Your task to perform on an android device: Show the shopping cart on ebay. Image 0: 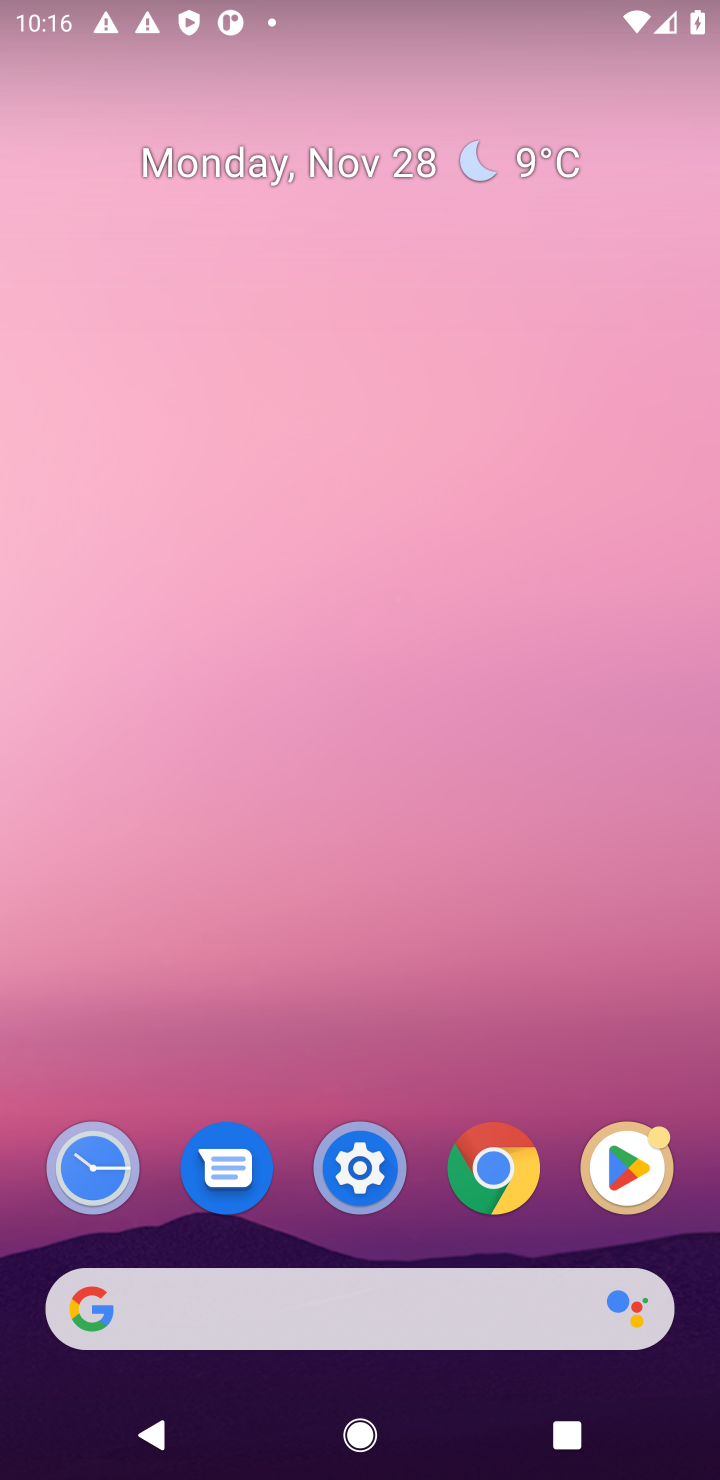
Step 0: click (368, 1290)
Your task to perform on an android device: Show the shopping cart on ebay. Image 1: 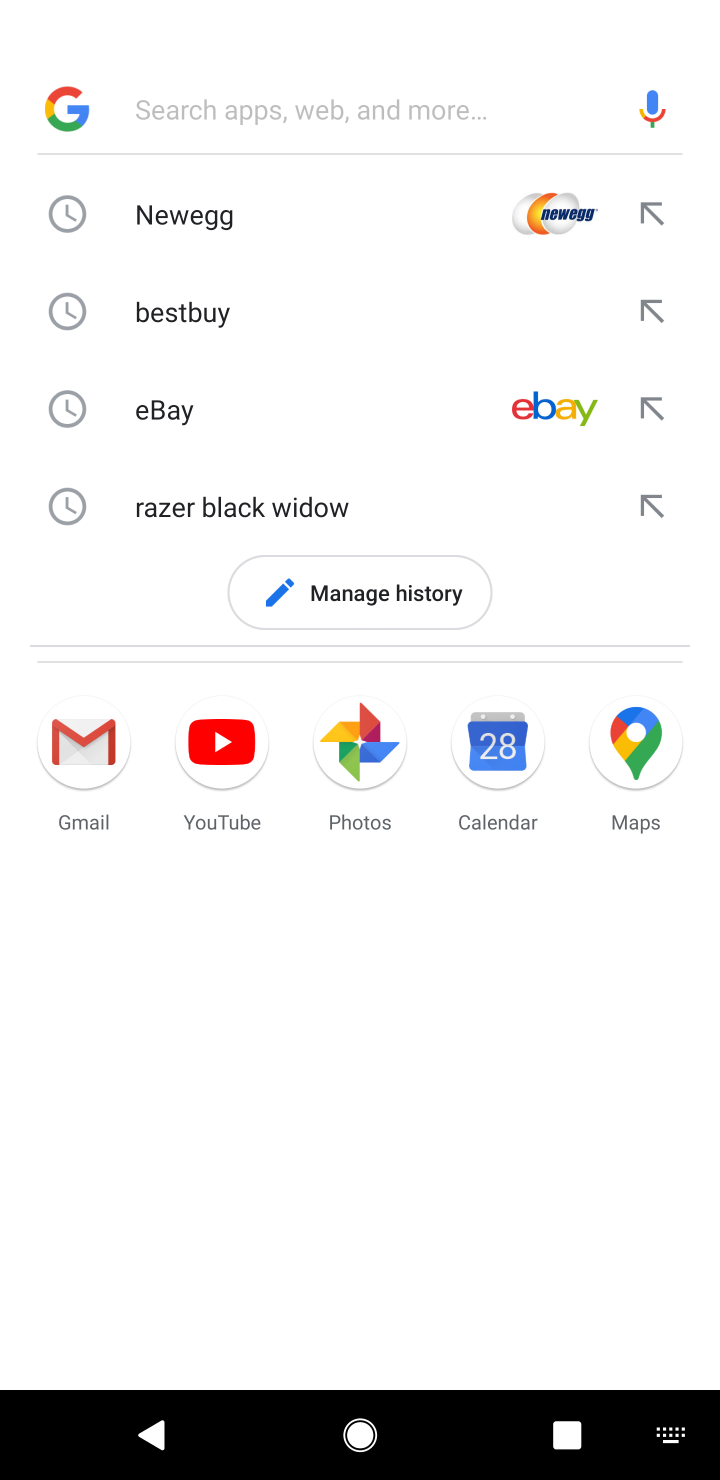
Step 1: click (322, 411)
Your task to perform on an android device: Show the shopping cart on ebay. Image 2: 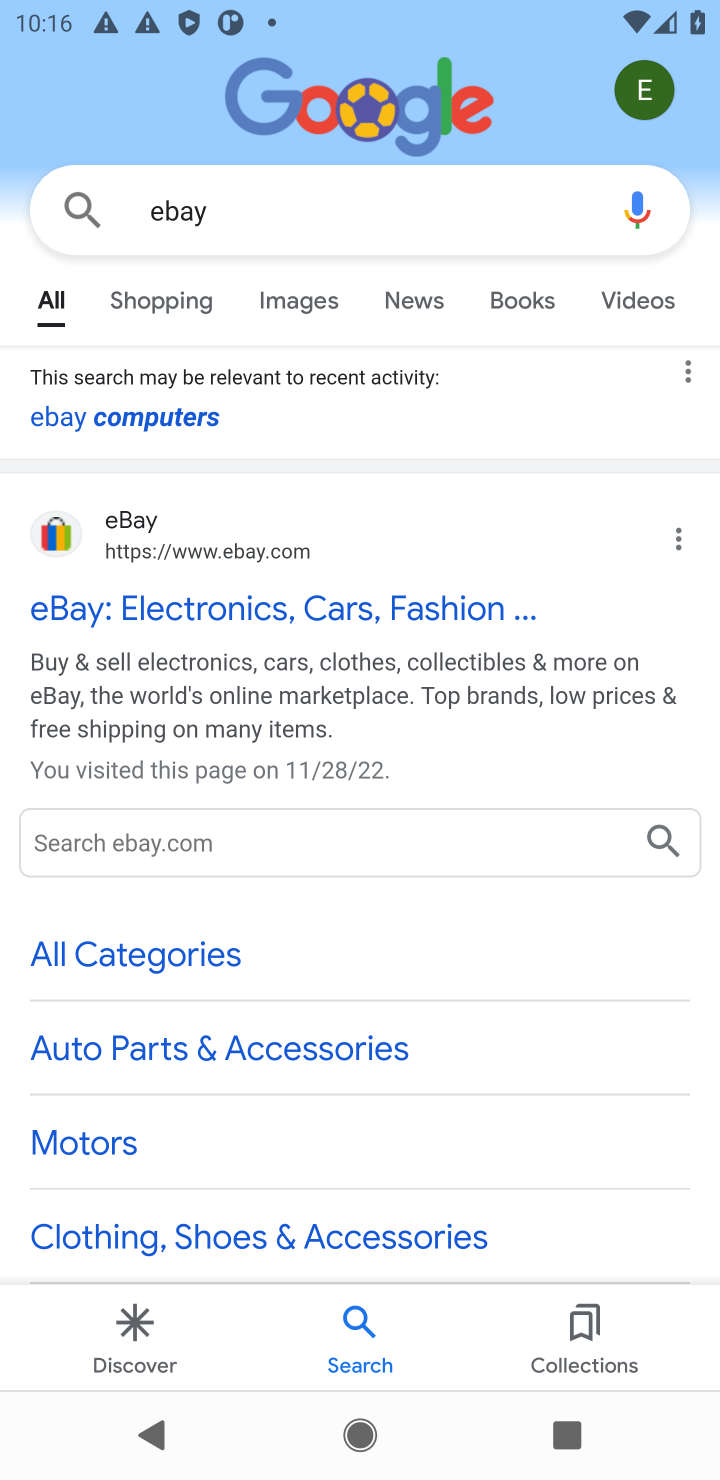
Step 2: click (79, 580)
Your task to perform on an android device: Show the shopping cart on ebay. Image 3: 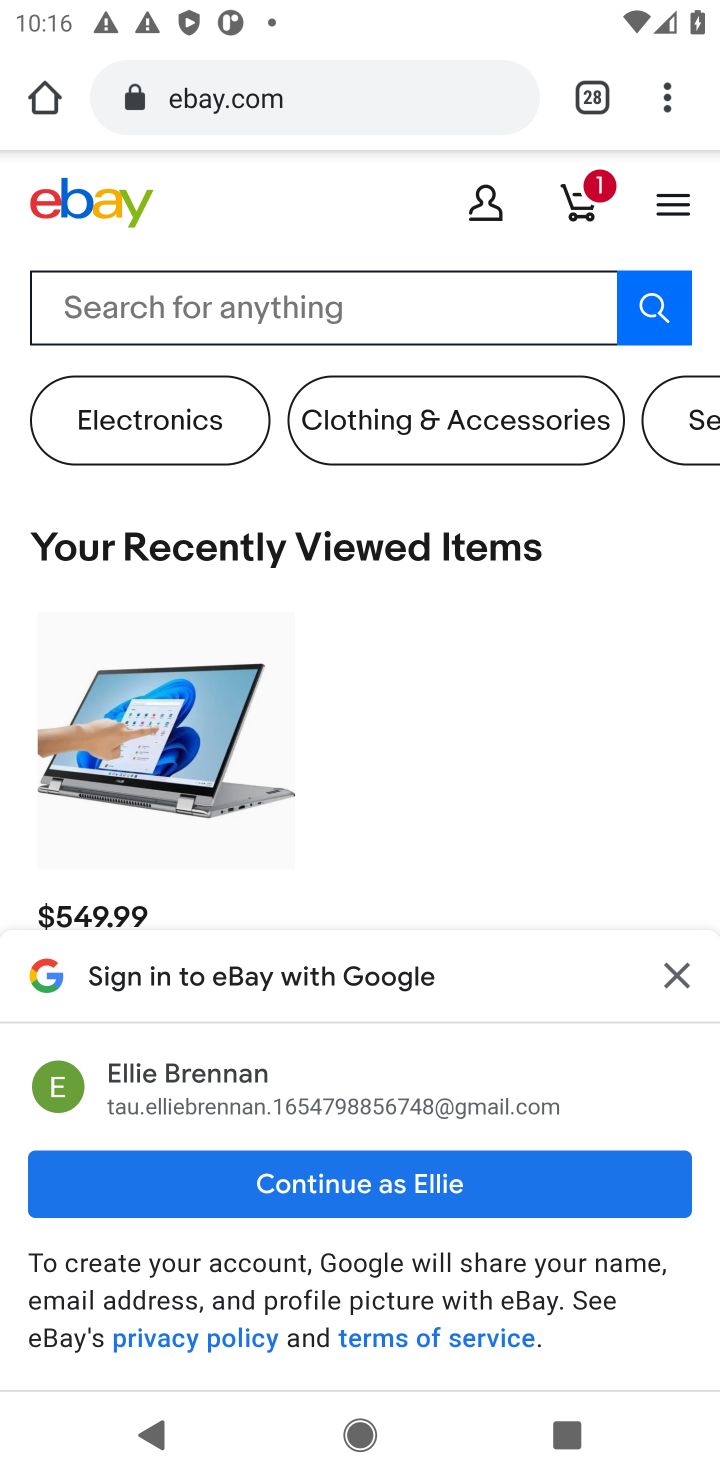
Step 3: click (74, 287)
Your task to perform on an android device: Show the shopping cart on ebay. Image 4: 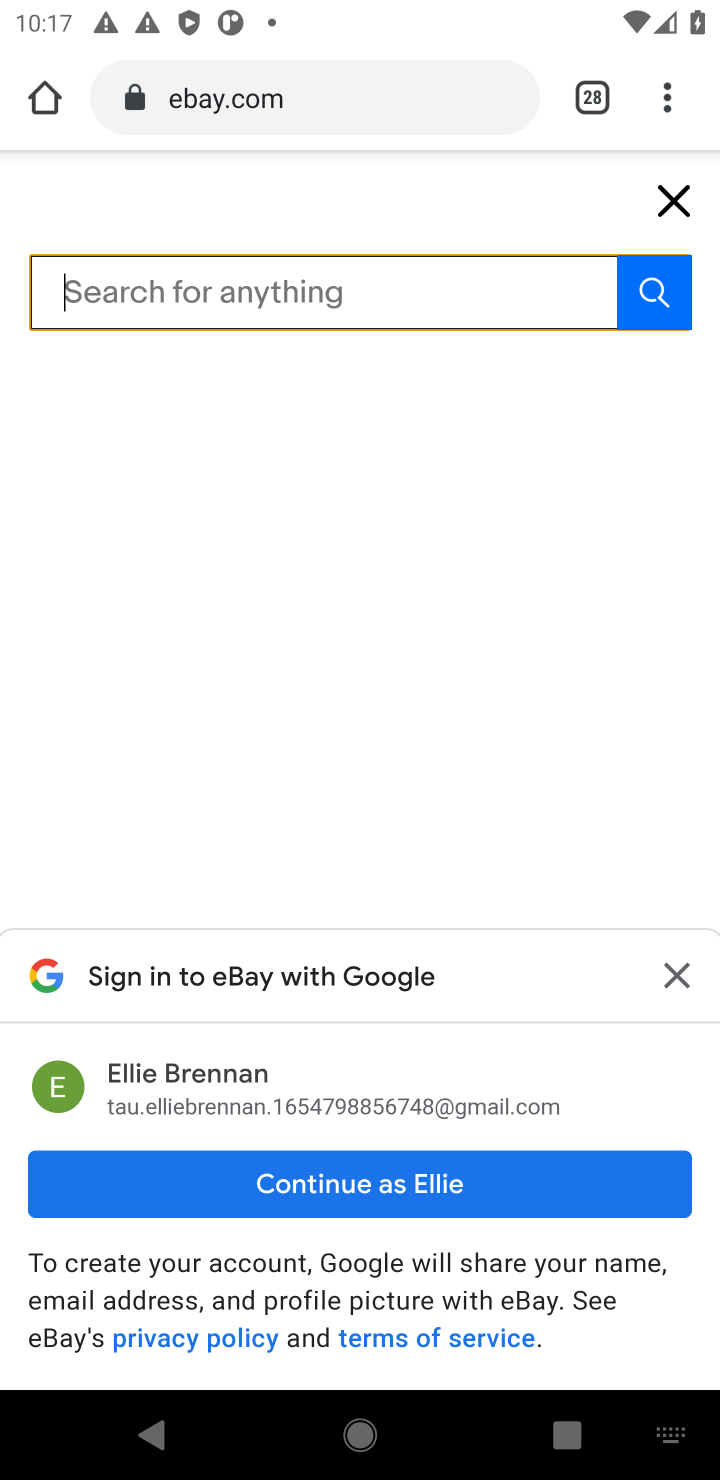
Step 4: task complete